Your task to perform on an android device: open wifi settings Image 0: 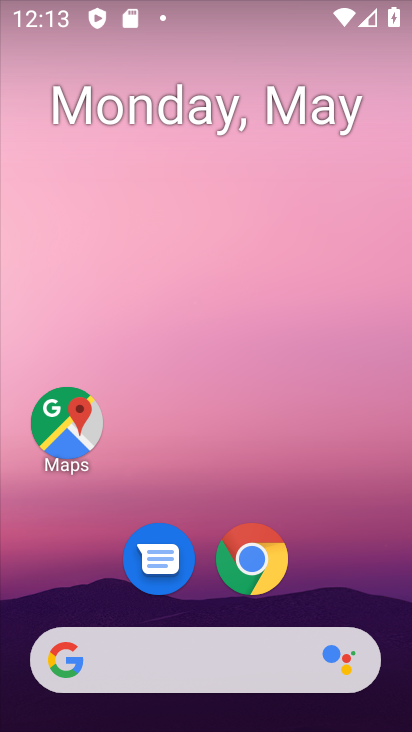
Step 0: drag from (239, 706) to (232, 197)
Your task to perform on an android device: open wifi settings Image 1: 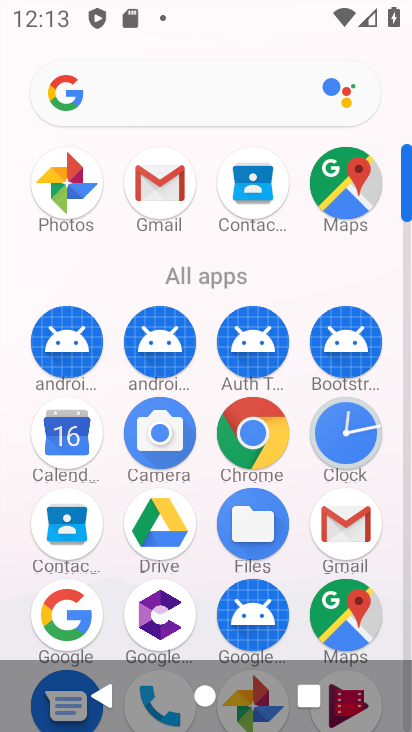
Step 1: drag from (222, 548) to (314, 106)
Your task to perform on an android device: open wifi settings Image 2: 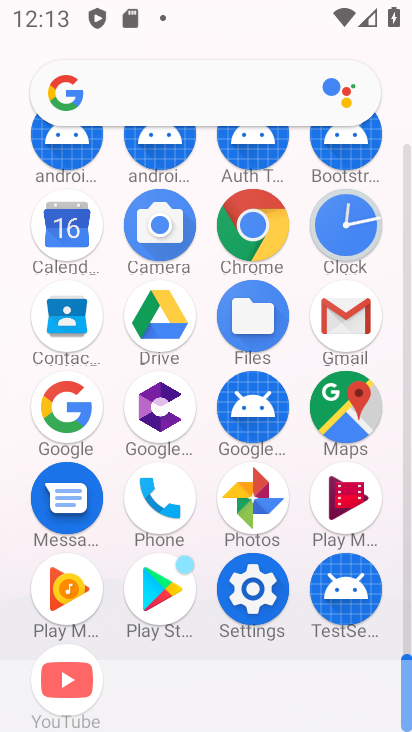
Step 2: click (268, 586)
Your task to perform on an android device: open wifi settings Image 3: 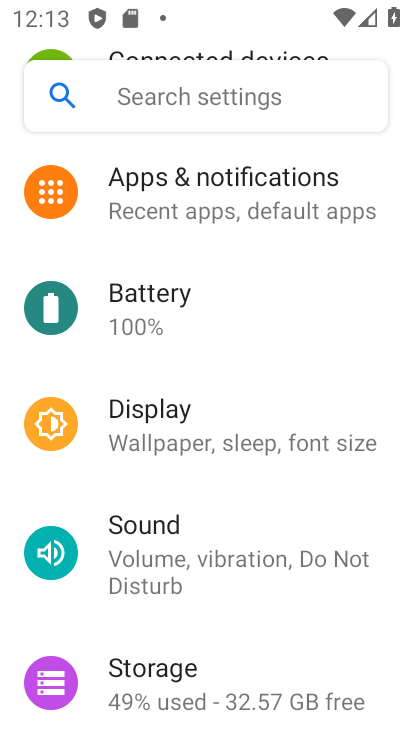
Step 3: drag from (305, 304) to (269, 724)
Your task to perform on an android device: open wifi settings Image 4: 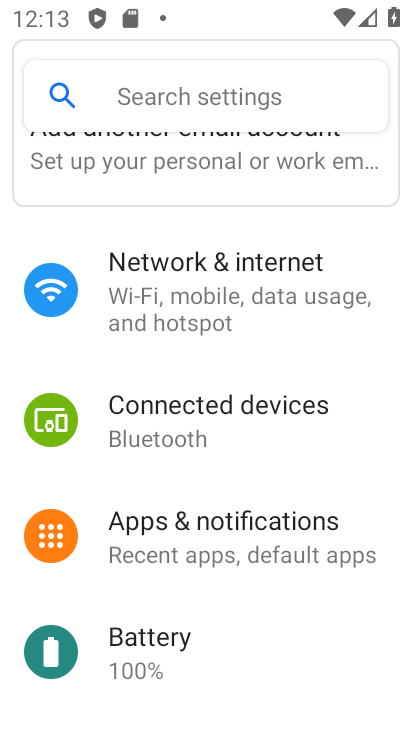
Step 4: drag from (294, 254) to (260, 648)
Your task to perform on an android device: open wifi settings Image 5: 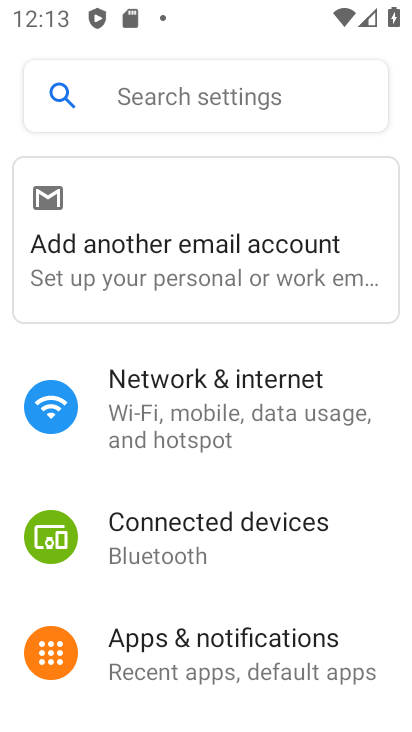
Step 5: click (213, 308)
Your task to perform on an android device: open wifi settings Image 6: 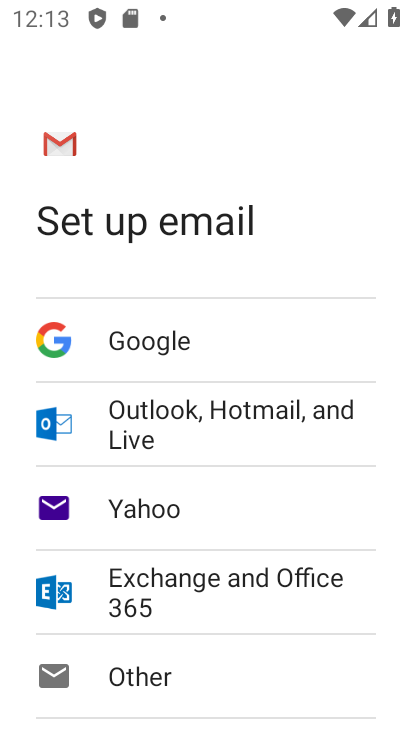
Step 6: press home button
Your task to perform on an android device: open wifi settings Image 7: 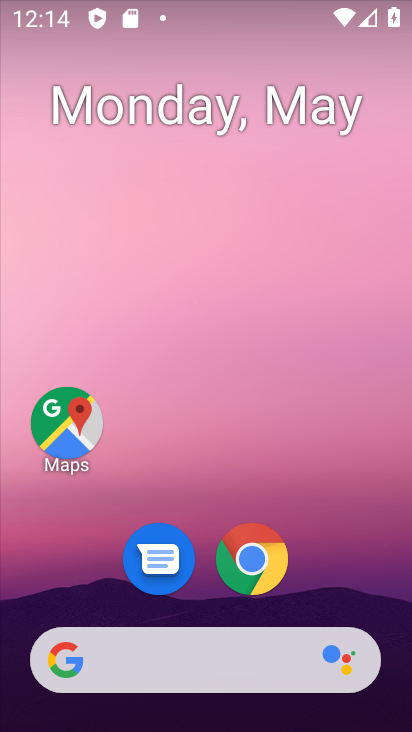
Step 7: drag from (175, 719) to (291, 60)
Your task to perform on an android device: open wifi settings Image 8: 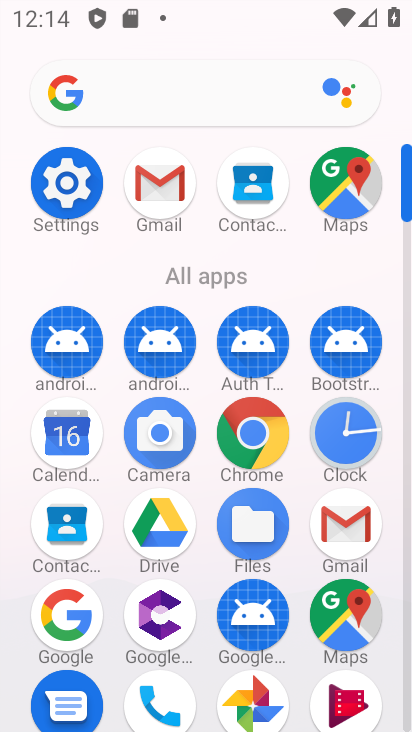
Step 8: click (80, 173)
Your task to perform on an android device: open wifi settings Image 9: 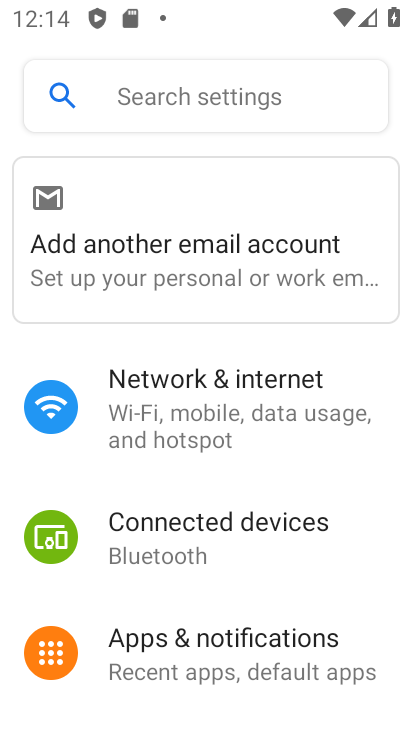
Step 9: click (180, 435)
Your task to perform on an android device: open wifi settings Image 10: 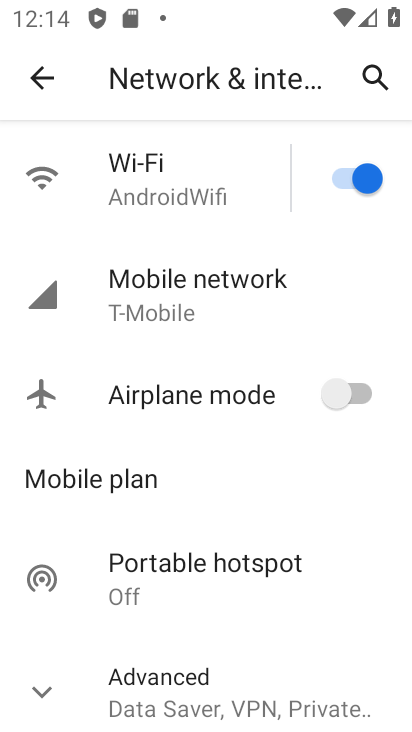
Step 10: click (191, 183)
Your task to perform on an android device: open wifi settings Image 11: 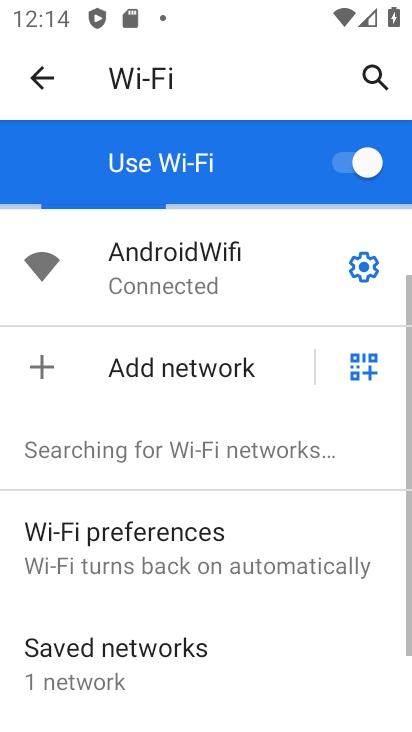
Step 11: click (361, 279)
Your task to perform on an android device: open wifi settings Image 12: 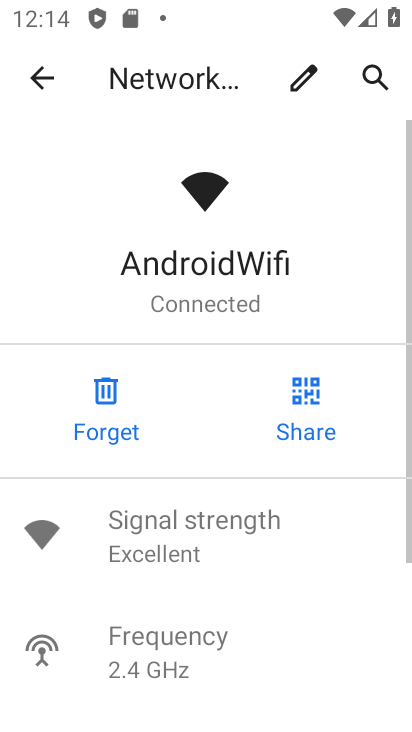
Step 12: task complete